Your task to perform on an android device: When is my next appointment? Image 0: 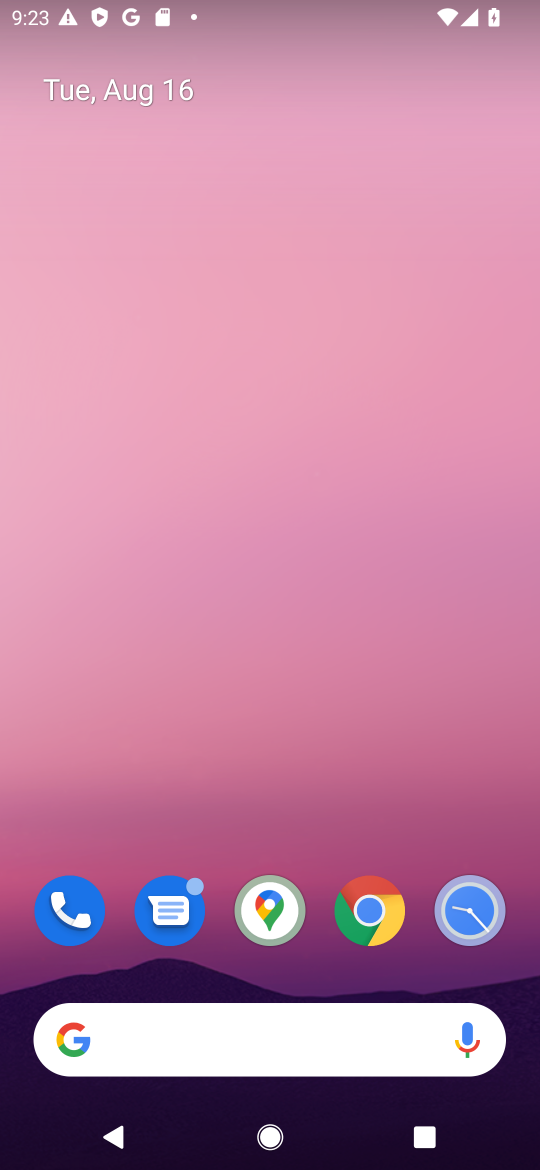
Step 0: drag from (295, 819) to (297, 0)
Your task to perform on an android device: When is my next appointment? Image 1: 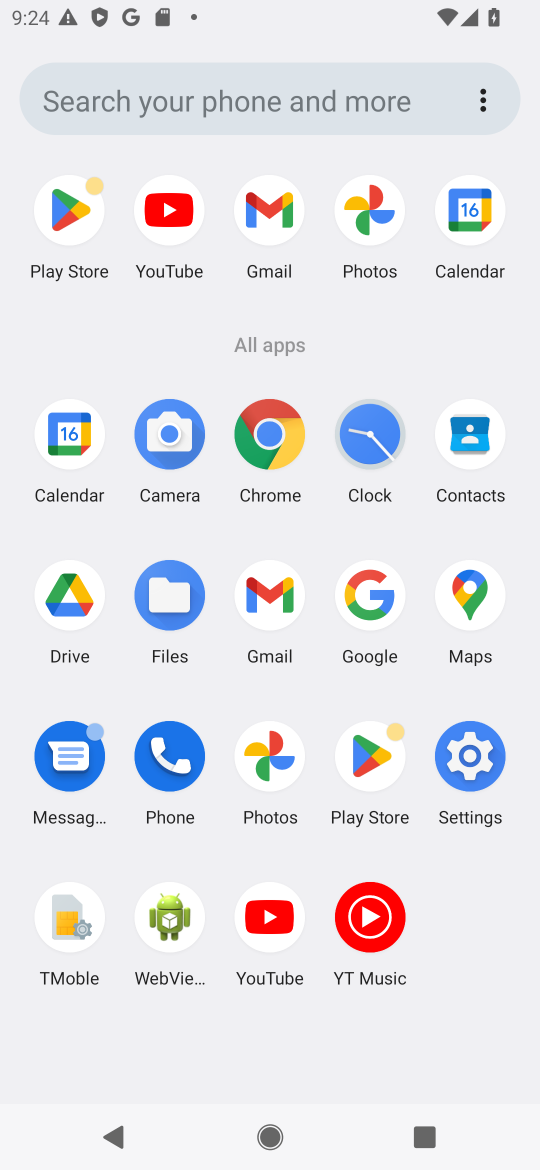
Step 1: click (471, 208)
Your task to perform on an android device: When is my next appointment? Image 2: 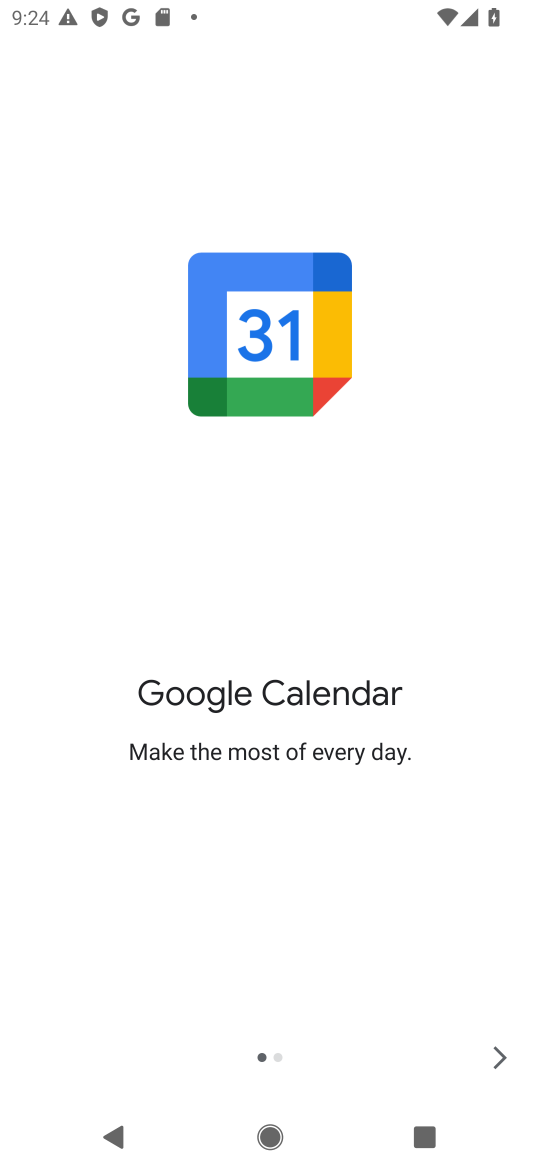
Step 2: click (500, 1049)
Your task to perform on an android device: When is my next appointment? Image 3: 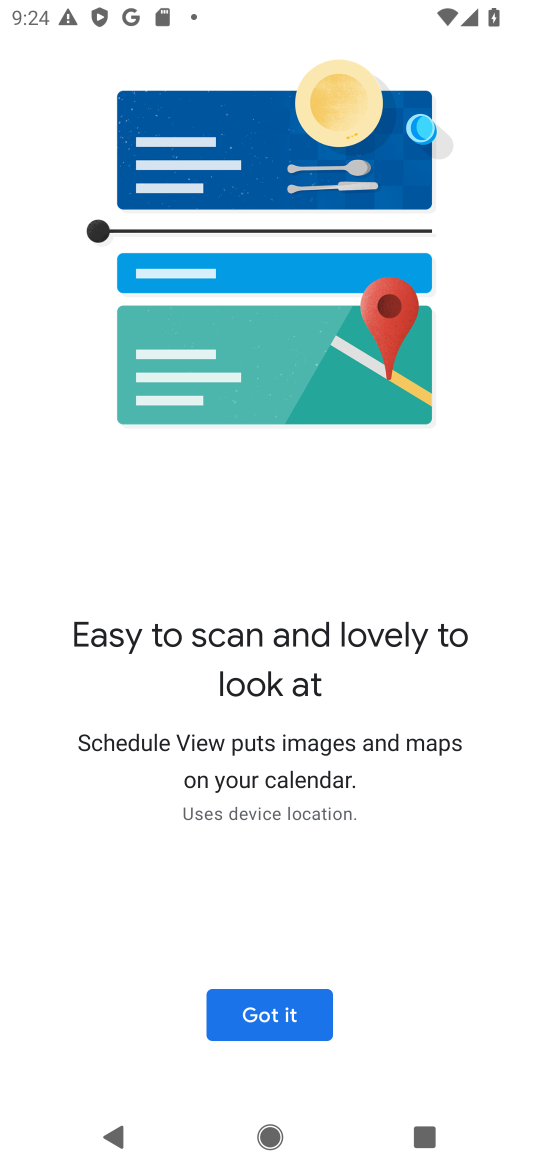
Step 3: click (325, 1014)
Your task to perform on an android device: When is my next appointment? Image 4: 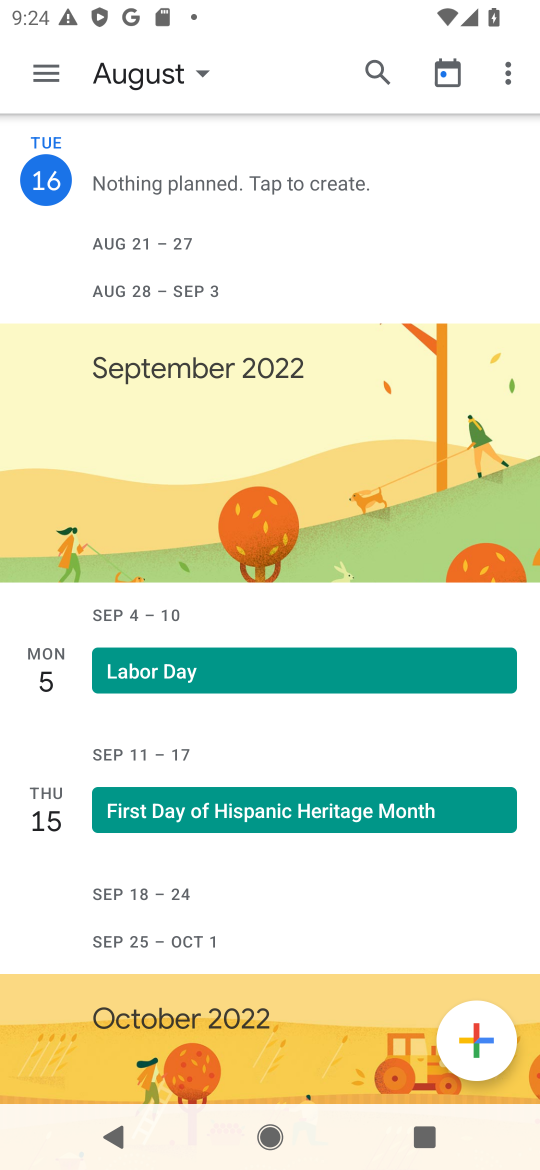
Step 4: task complete